Your task to perform on an android device: turn on showing notifications on the lock screen Image 0: 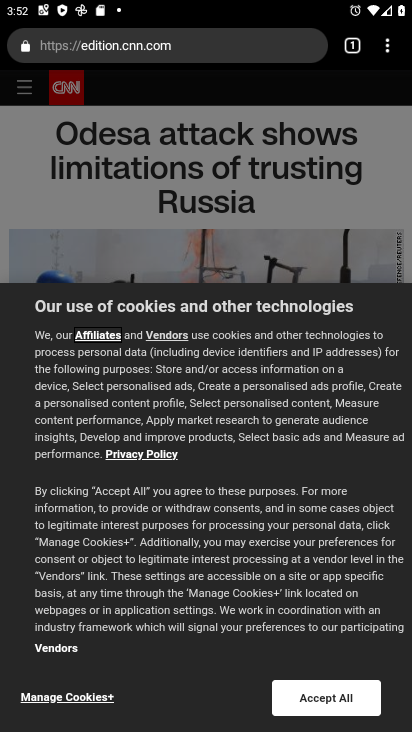
Step 0: click (323, 694)
Your task to perform on an android device: turn on showing notifications on the lock screen Image 1: 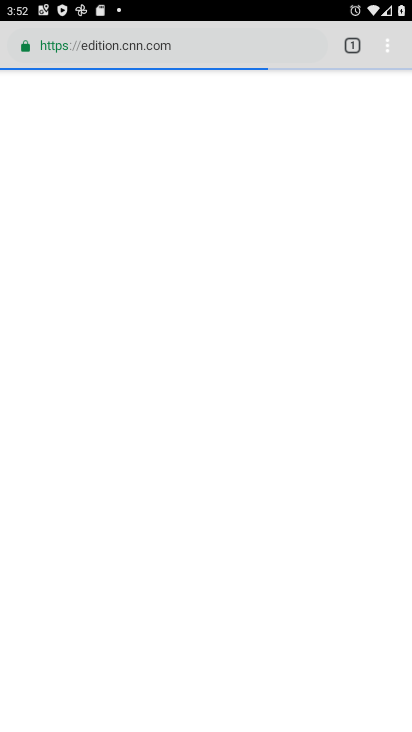
Step 1: task complete